Your task to perform on an android device: show emergency info Image 0: 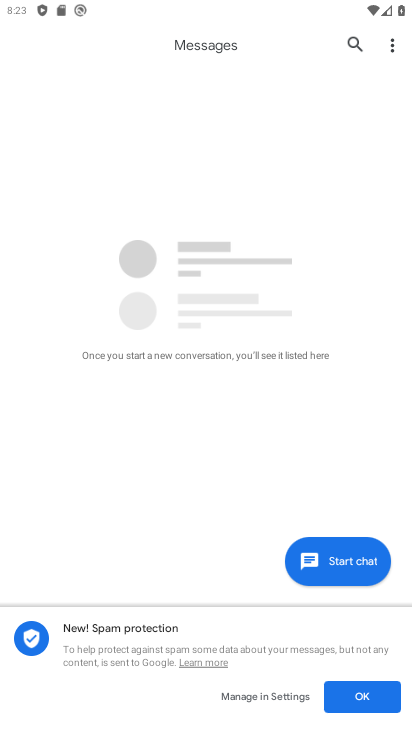
Step 0: press home button
Your task to perform on an android device: show emergency info Image 1: 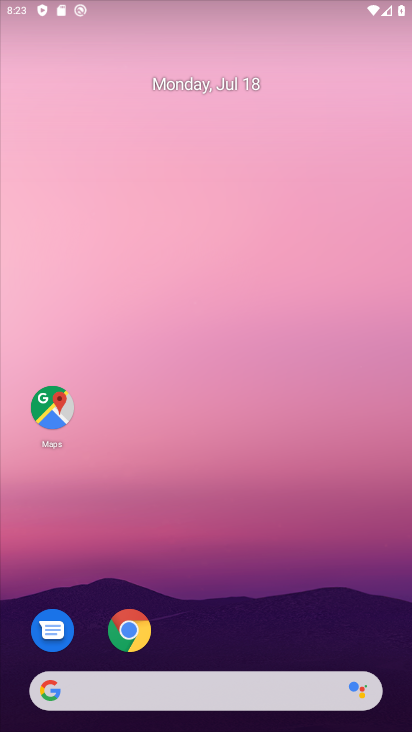
Step 1: drag from (203, 525) to (203, 322)
Your task to perform on an android device: show emergency info Image 2: 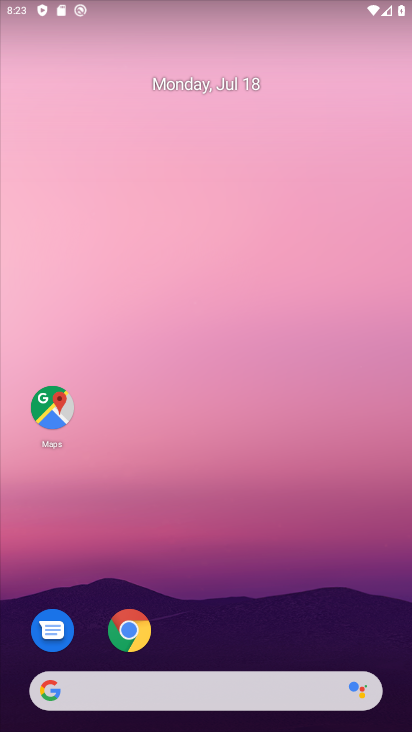
Step 2: drag from (231, 579) to (313, 94)
Your task to perform on an android device: show emergency info Image 3: 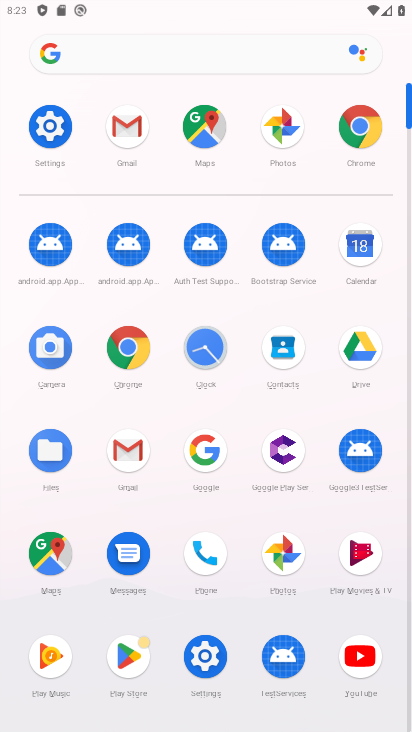
Step 3: click (39, 115)
Your task to perform on an android device: show emergency info Image 4: 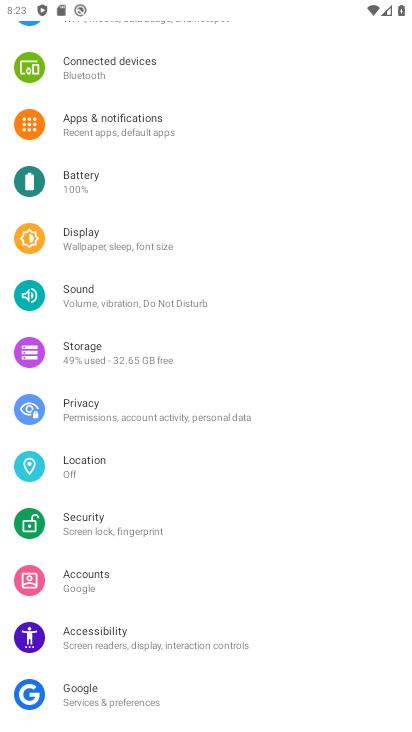
Step 4: drag from (197, 678) to (204, 250)
Your task to perform on an android device: show emergency info Image 5: 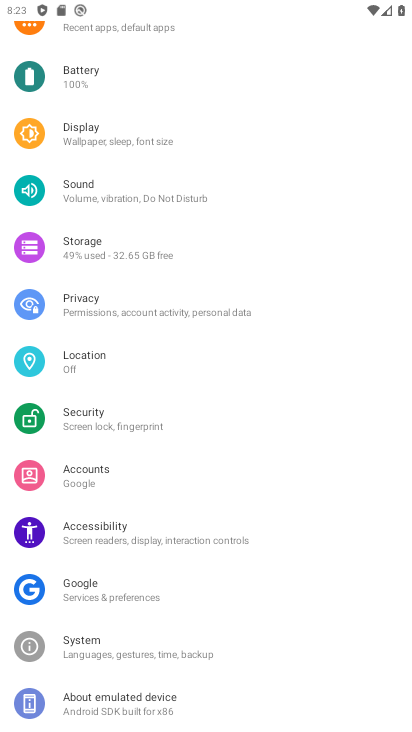
Step 5: click (155, 706)
Your task to perform on an android device: show emergency info Image 6: 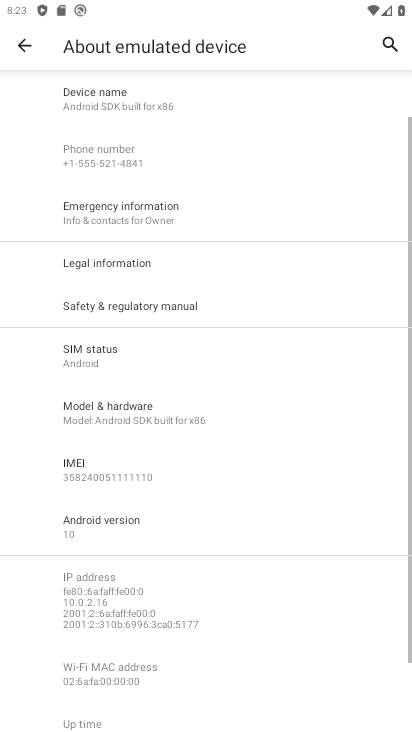
Step 6: drag from (169, 538) to (189, 117)
Your task to perform on an android device: show emergency info Image 7: 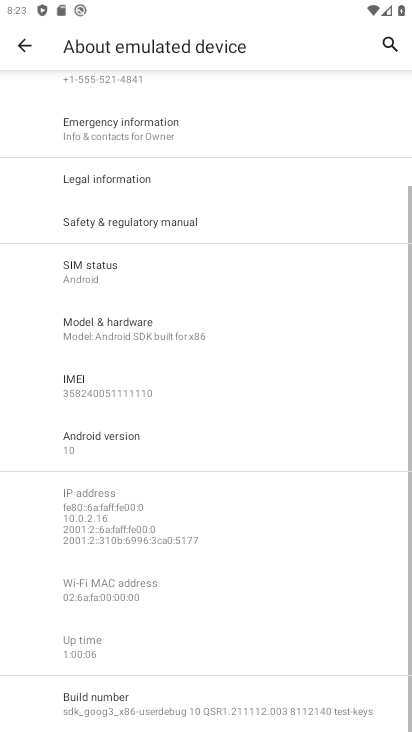
Step 7: click (151, 124)
Your task to perform on an android device: show emergency info Image 8: 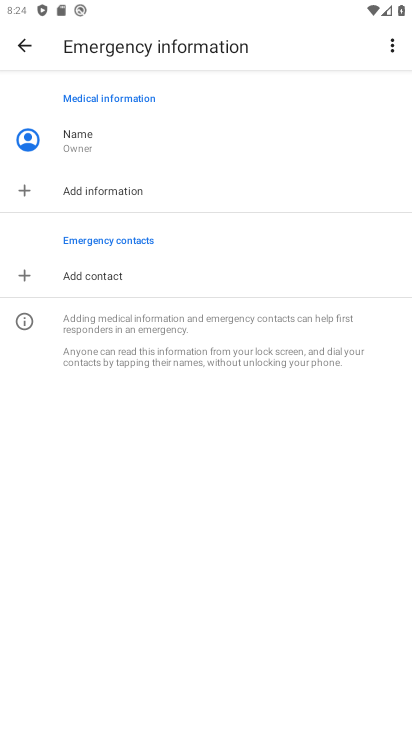
Step 8: task complete